Your task to perform on an android device: change notifications settings Image 0: 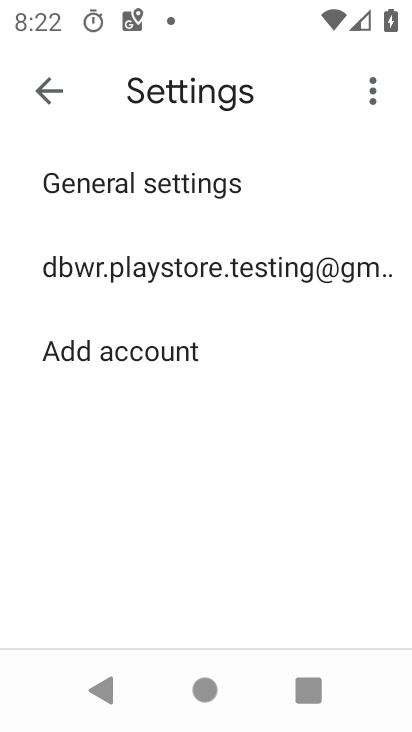
Step 0: click (239, 500)
Your task to perform on an android device: change notifications settings Image 1: 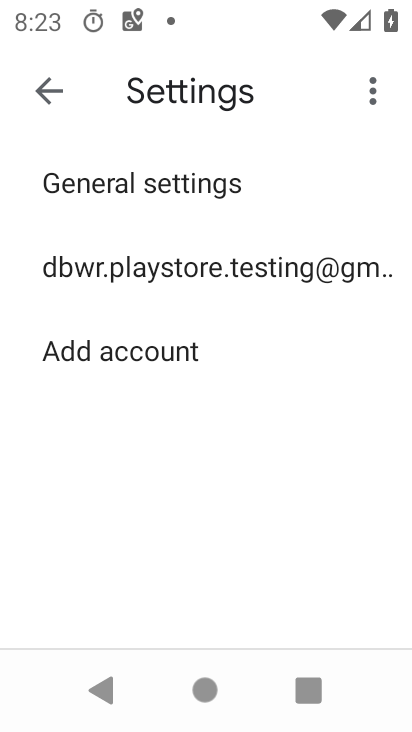
Step 1: press home button
Your task to perform on an android device: change notifications settings Image 2: 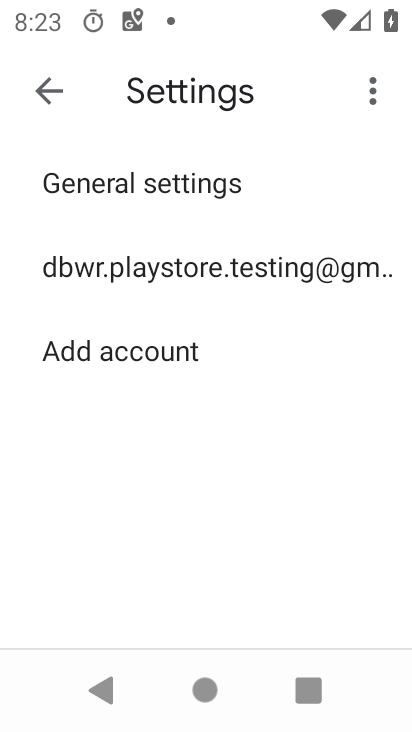
Step 2: drag from (227, 499) to (369, 57)
Your task to perform on an android device: change notifications settings Image 3: 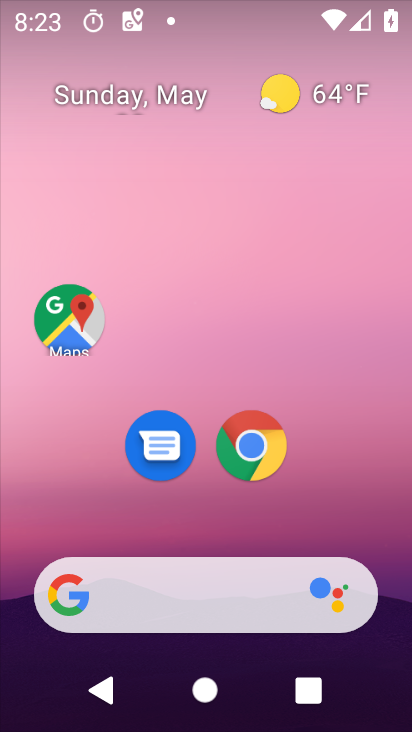
Step 3: drag from (215, 535) to (226, 9)
Your task to perform on an android device: change notifications settings Image 4: 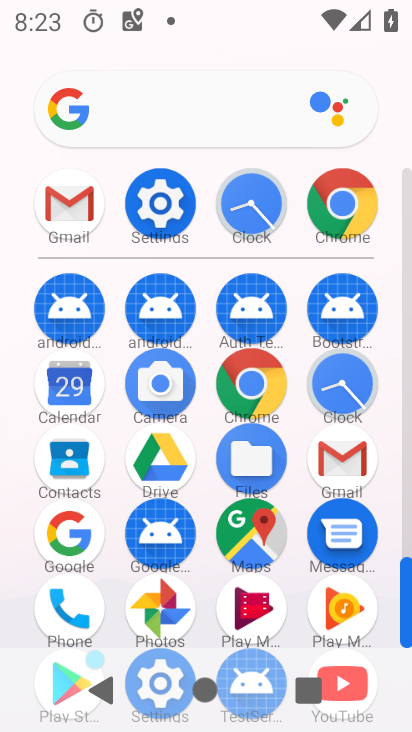
Step 4: click (166, 194)
Your task to perform on an android device: change notifications settings Image 5: 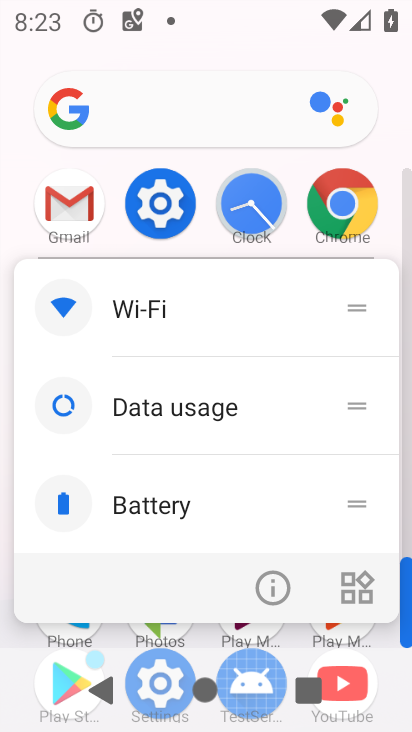
Step 5: click (276, 589)
Your task to perform on an android device: change notifications settings Image 6: 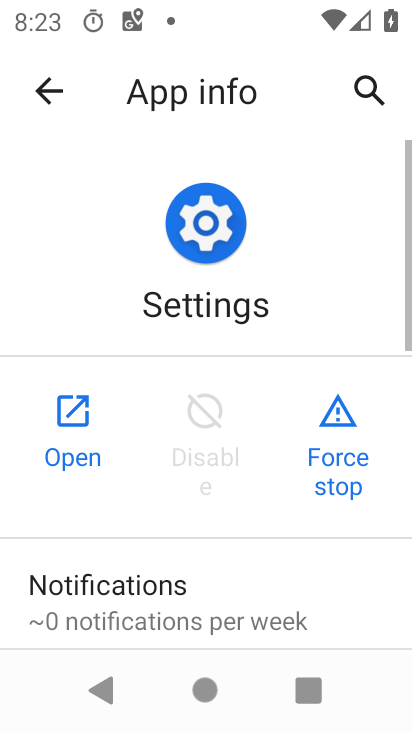
Step 6: click (72, 438)
Your task to perform on an android device: change notifications settings Image 7: 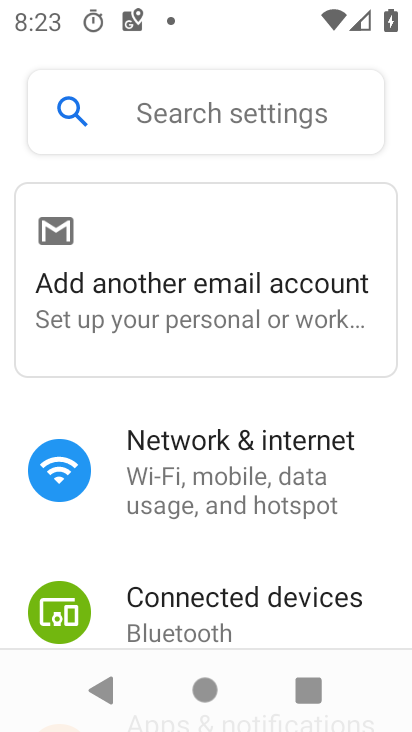
Step 7: drag from (221, 567) to (386, 129)
Your task to perform on an android device: change notifications settings Image 8: 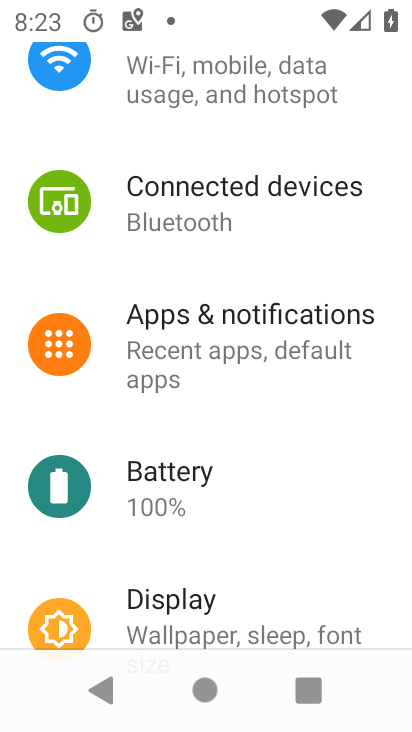
Step 8: click (234, 337)
Your task to perform on an android device: change notifications settings Image 9: 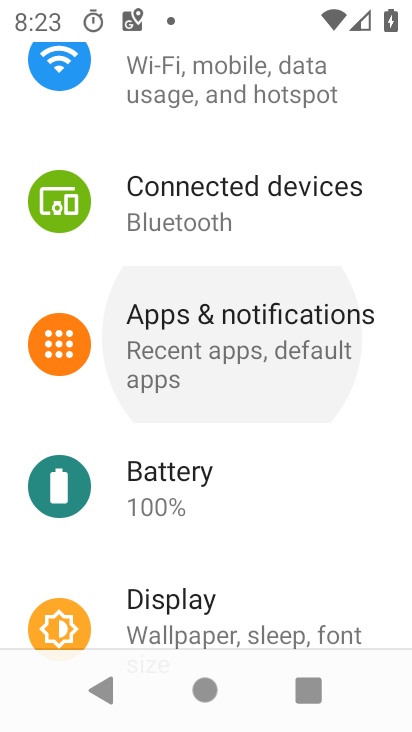
Step 9: click (234, 337)
Your task to perform on an android device: change notifications settings Image 10: 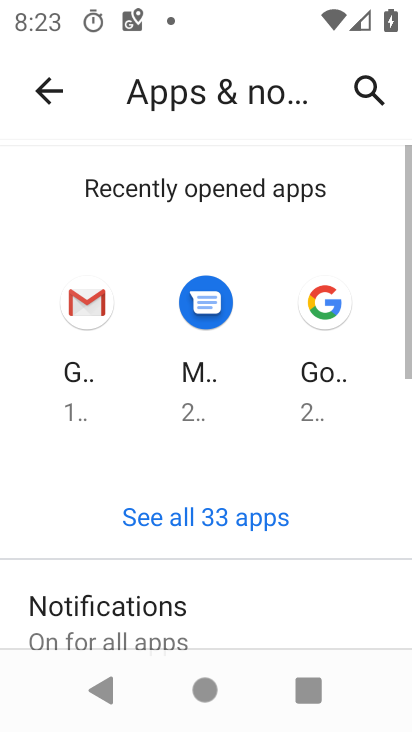
Step 10: drag from (250, 491) to (379, 112)
Your task to perform on an android device: change notifications settings Image 11: 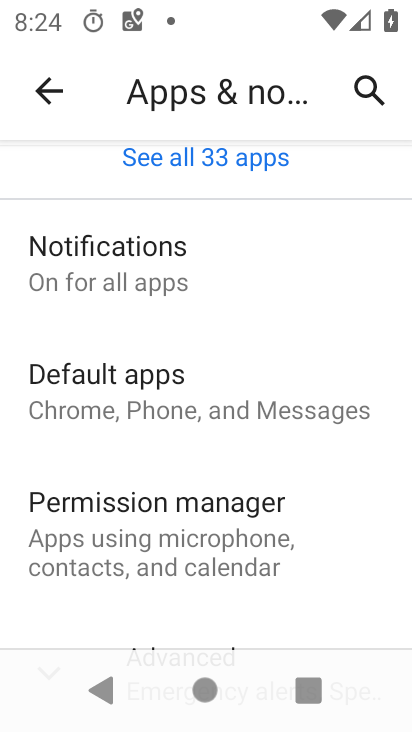
Step 11: drag from (232, 490) to (328, 200)
Your task to perform on an android device: change notifications settings Image 12: 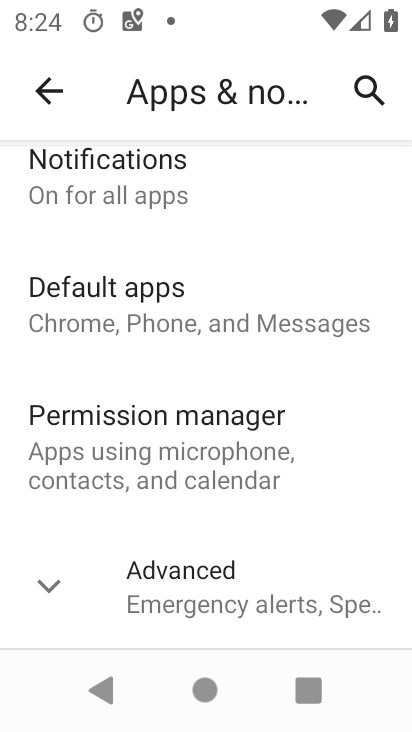
Step 12: click (188, 187)
Your task to perform on an android device: change notifications settings Image 13: 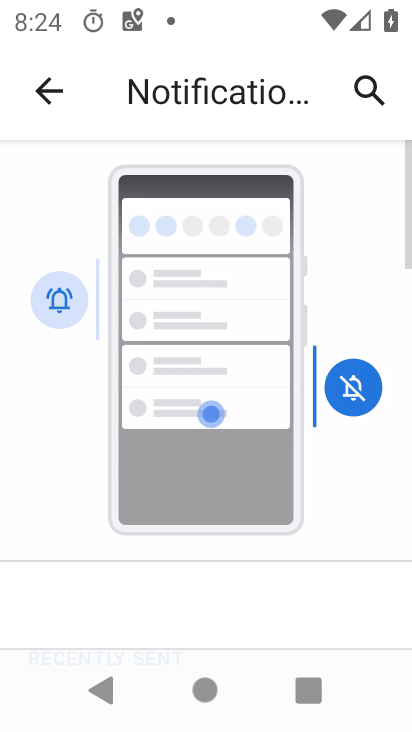
Step 13: drag from (347, 455) to (410, 63)
Your task to perform on an android device: change notifications settings Image 14: 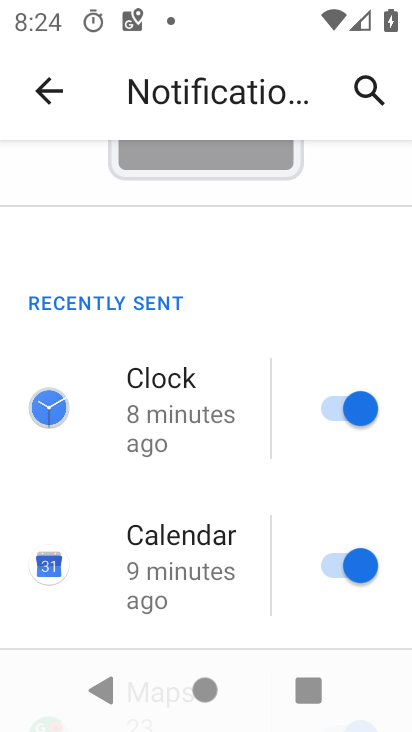
Step 14: drag from (288, 530) to (365, 137)
Your task to perform on an android device: change notifications settings Image 15: 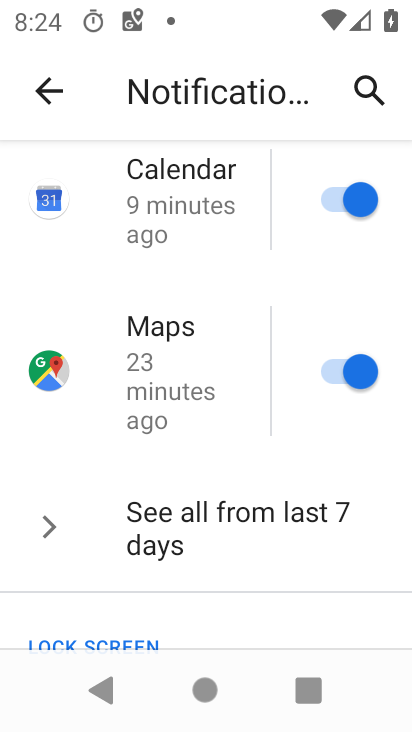
Step 15: click (349, 370)
Your task to perform on an android device: change notifications settings Image 16: 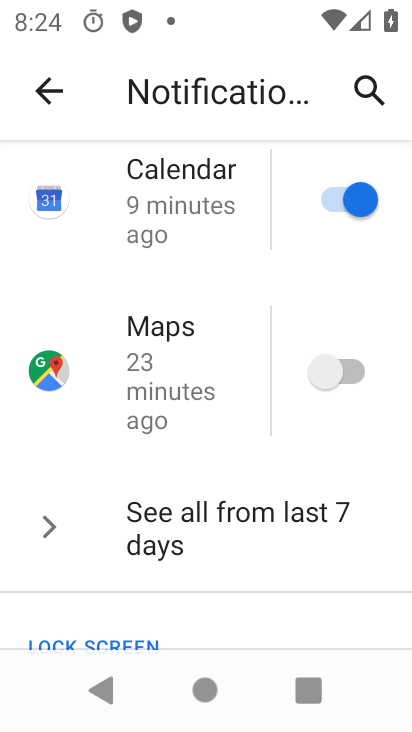
Step 16: task complete